Your task to perform on an android device: See recent photos Image 0: 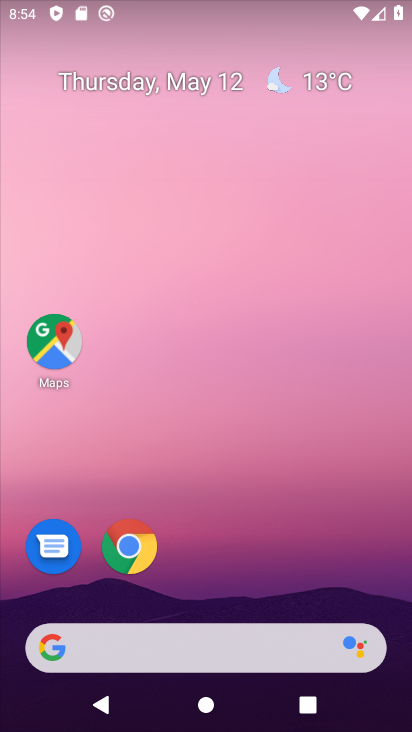
Step 0: drag from (267, 601) to (285, 151)
Your task to perform on an android device: See recent photos Image 1: 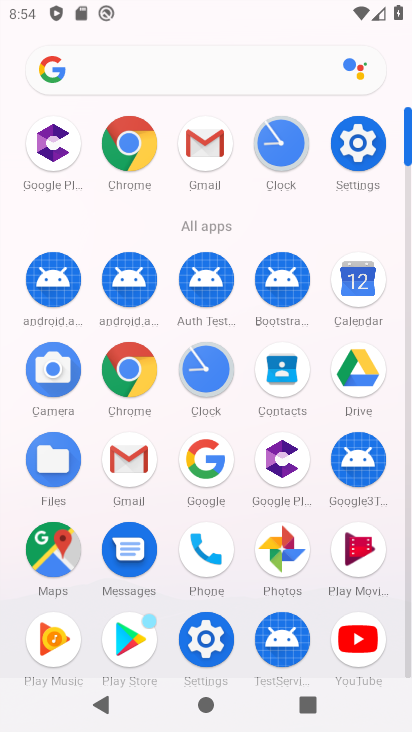
Step 1: click (122, 143)
Your task to perform on an android device: See recent photos Image 2: 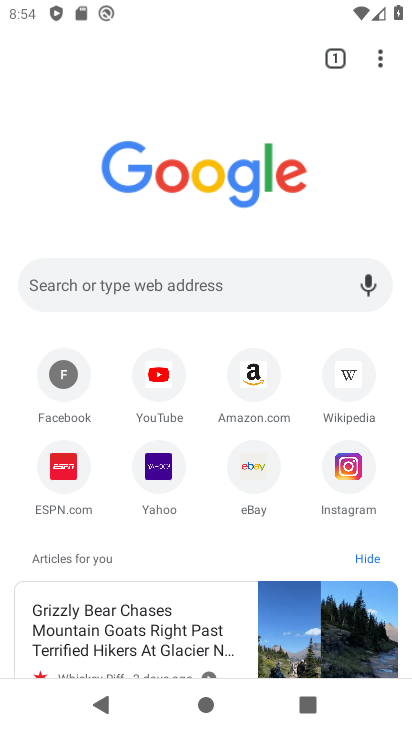
Step 2: click (381, 60)
Your task to perform on an android device: See recent photos Image 3: 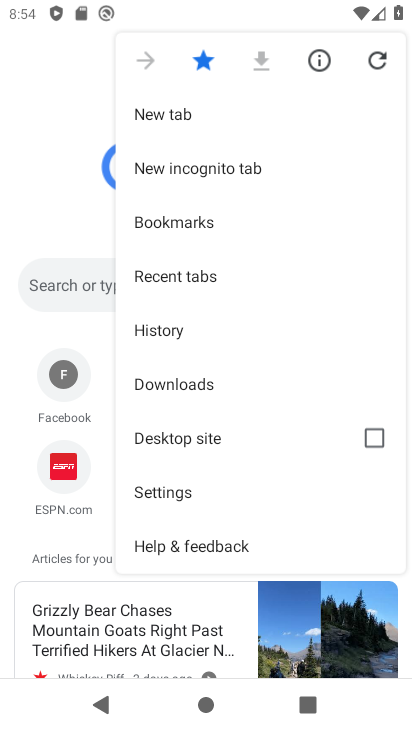
Step 3: click (203, 281)
Your task to perform on an android device: See recent photos Image 4: 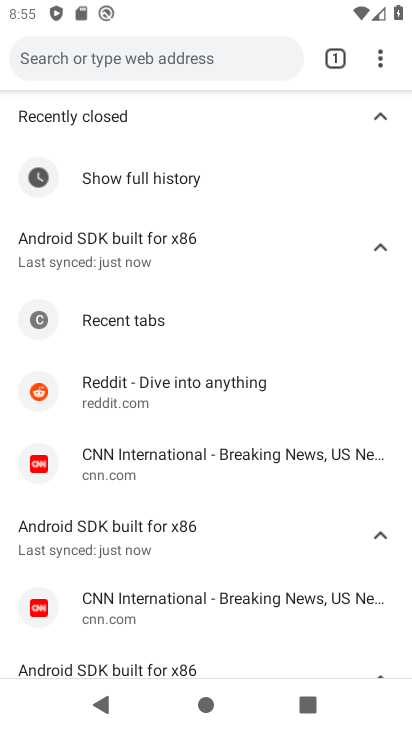
Step 4: click (187, 332)
Your task to perform on an android device: See recent photos Image 5: 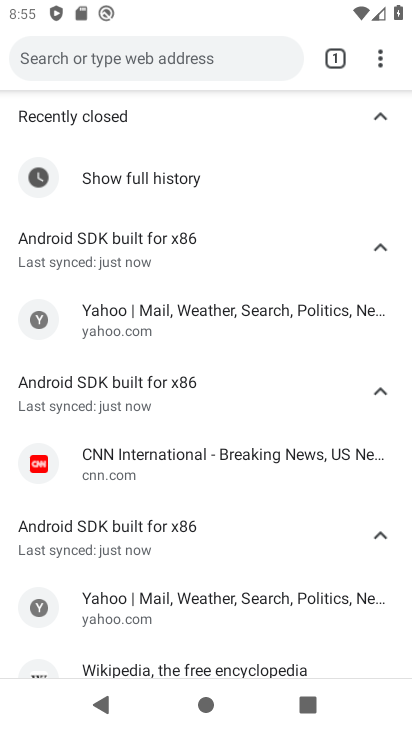
Step 5: task complete